Your task to perform on an android device: Open location settings Image 0: 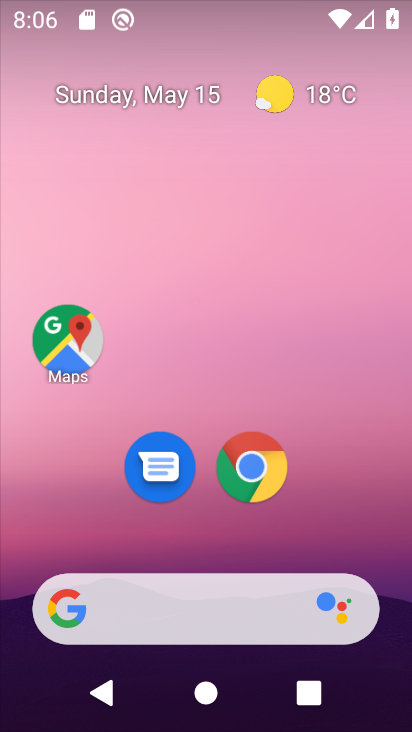
Step 0: drag from (181, 241) to (203, 20)
Your task to perform on an android device: Open location settings Image 1: 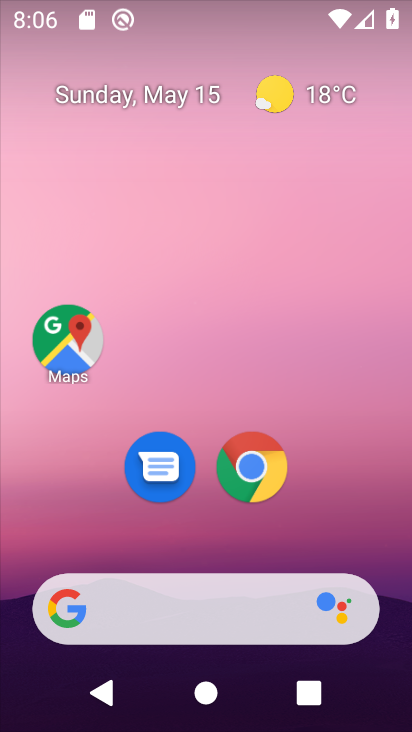
Step 1: drag from (314, 543) to (343, 9)
Your task to perform on an android device: Open location settings Image 2: 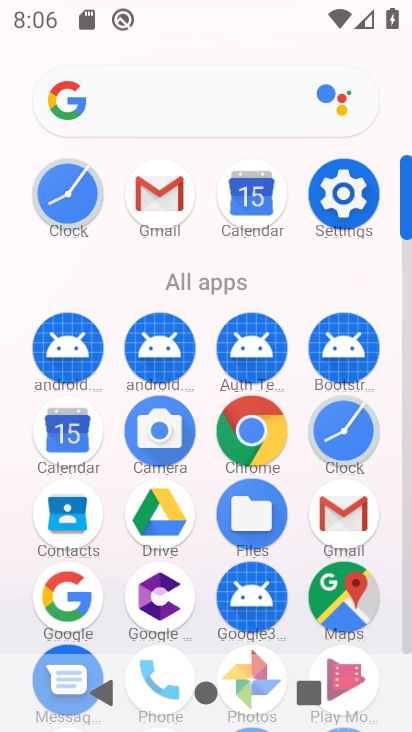
Step 2: click (339, 191)
Your task to perform on an android device: Open location settings Image 3: 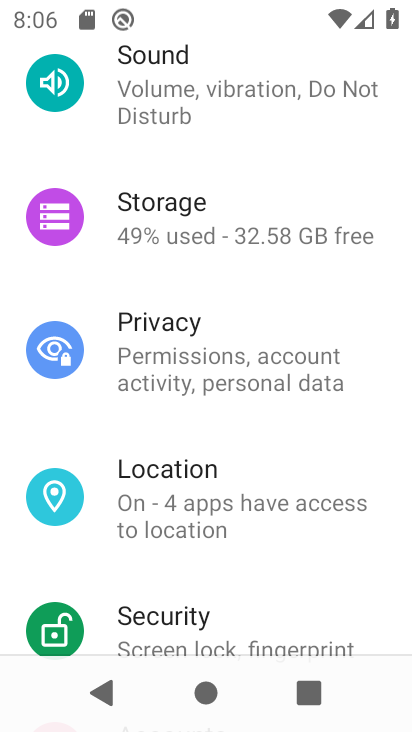
Step 3: click (216, 495)
Your task to perform on an android device: Open location settings Image 4: 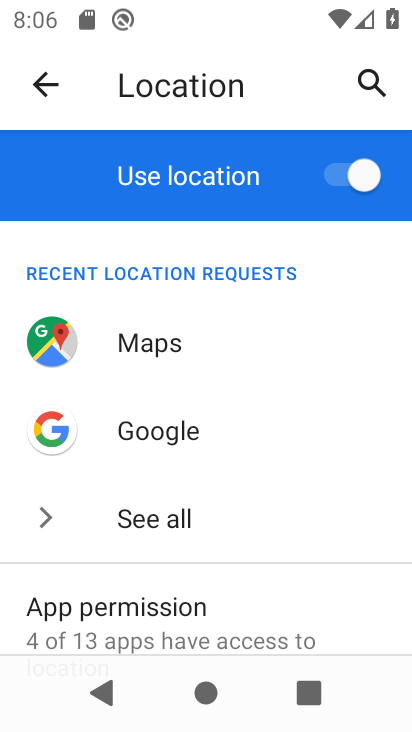
Step 4: task complete